Your task to perform on an android device: check battery use Image 0: 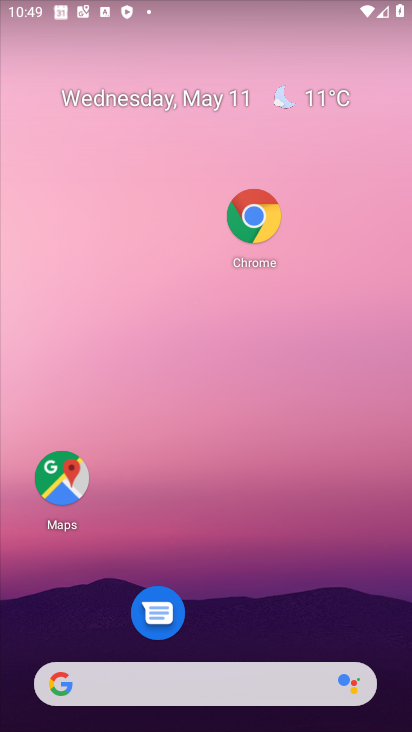
Step 0: drag from (223, 621) to (173, 221)
Your task to perform on an android device: check battery use Image 1: 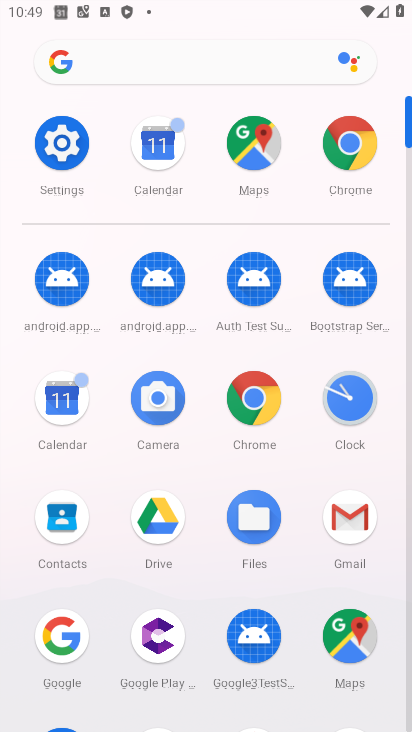
Step 1: click (71, 157)
Your task to perform on an android device: check battery use Image 2: 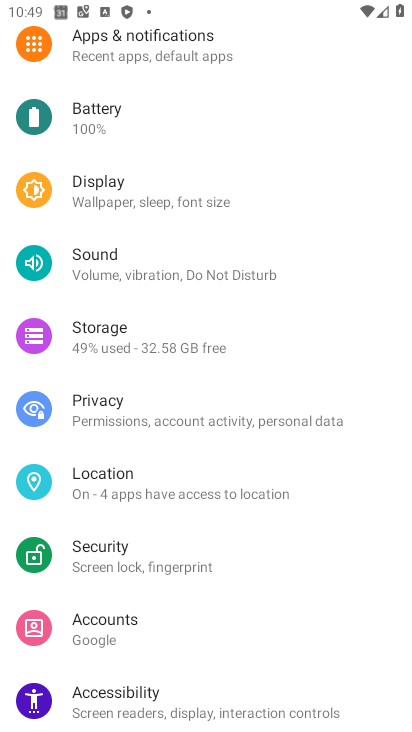
Step 2: click (156, 133)
Your task to perform on an android device: check battery use Image 3: 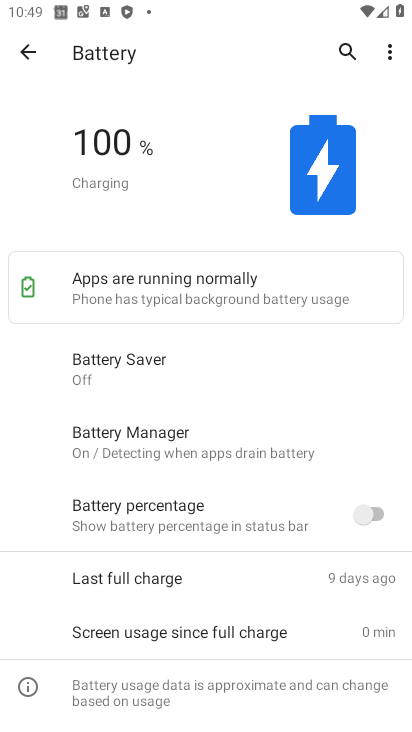
Step 3: click (390, 56)
Your task to perform on an android device: check battery use Image 4: 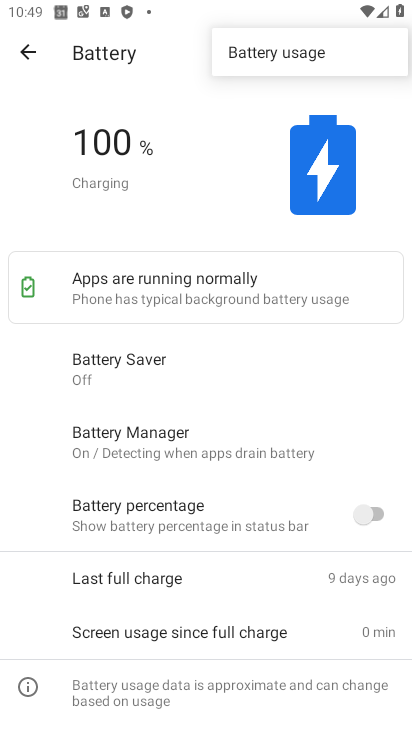
Step 4: click (318, 64)
Your task to perform on an android device: check battery use Image 5: 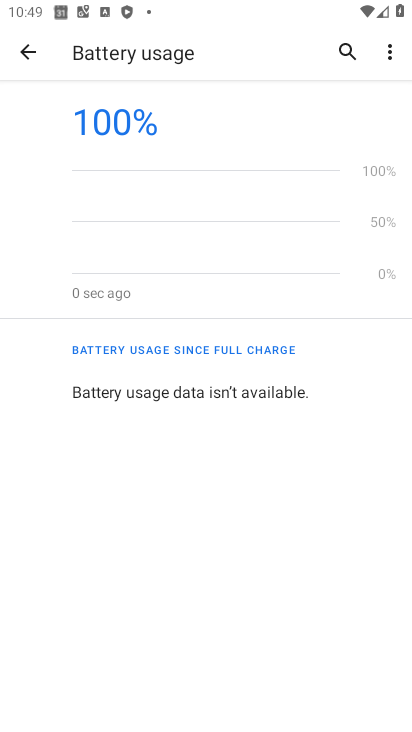
Step 5: task complete